Your task to perform on an android device: Open Google Maps Image 0: 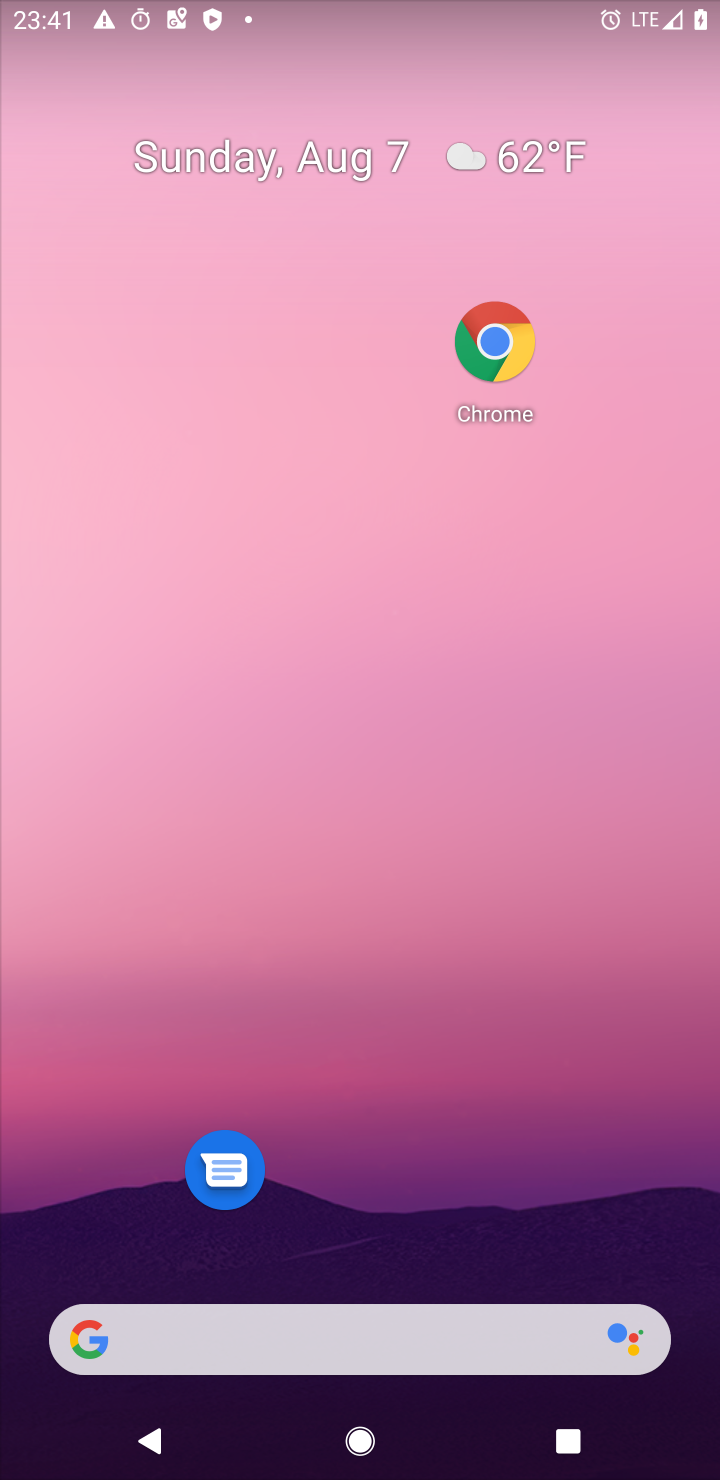
Step 0: drag from (295, 1326) to (358, 86)
Your task to perform on an android device: Open Google Maps Image 1: 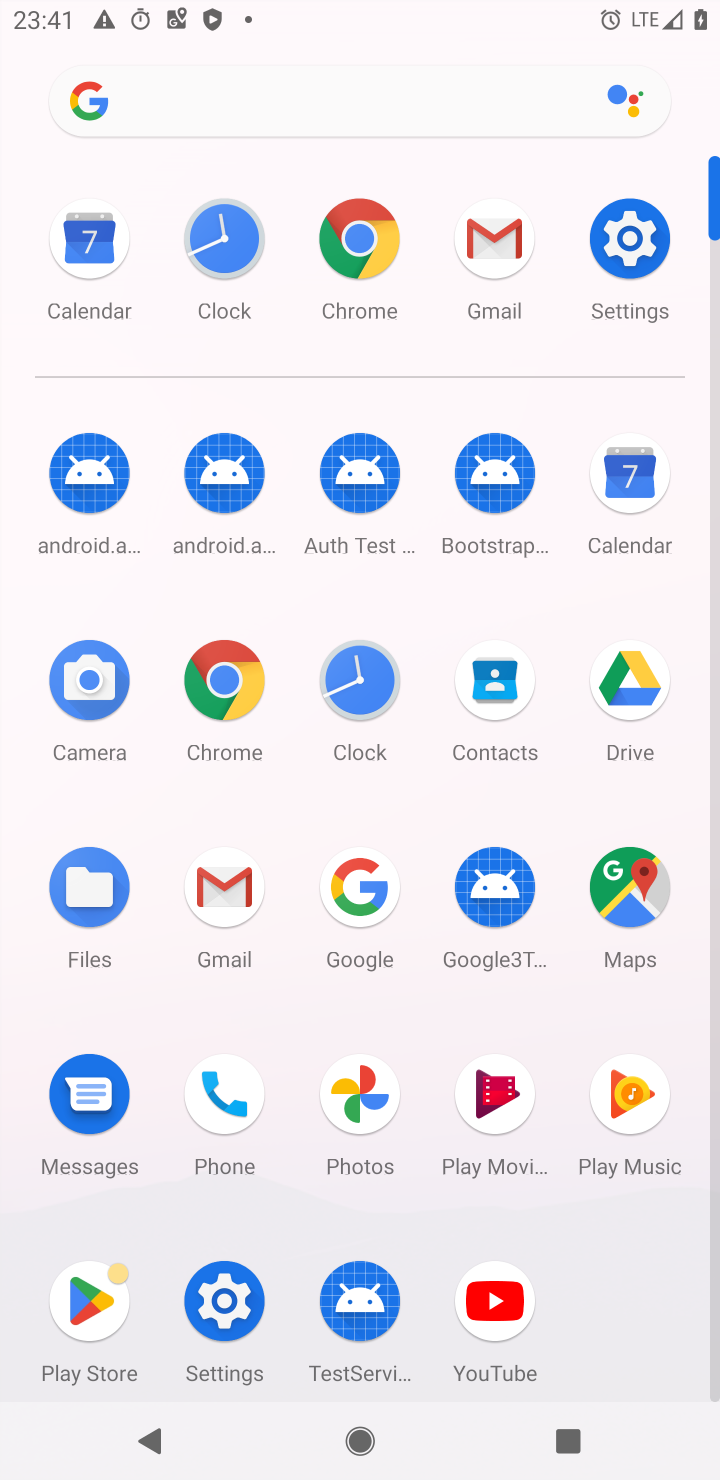
Step 1: click (648, 896)
Your task to perform on an android device: Open Google Maps Image 2: 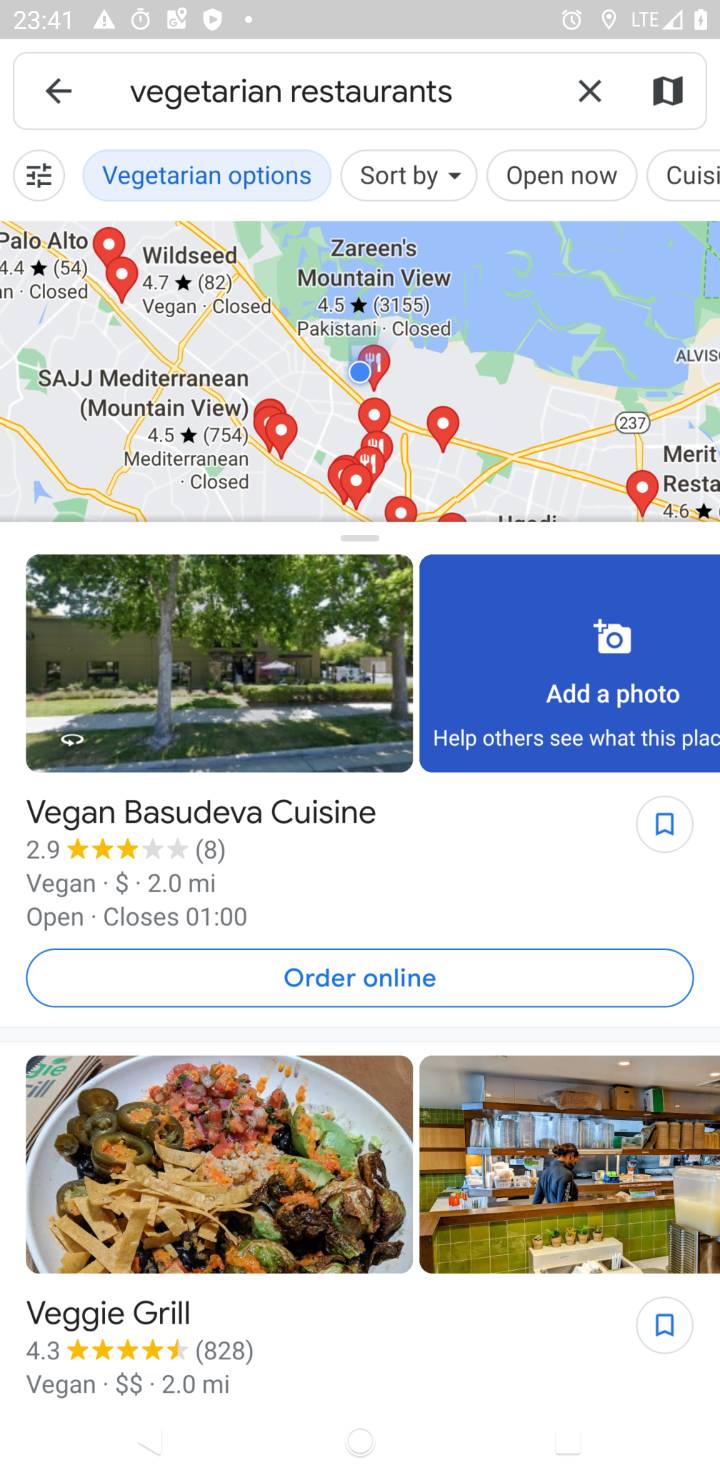
Step 2: task complete